Your task to perform on an android device: change notifications settings Image 0: 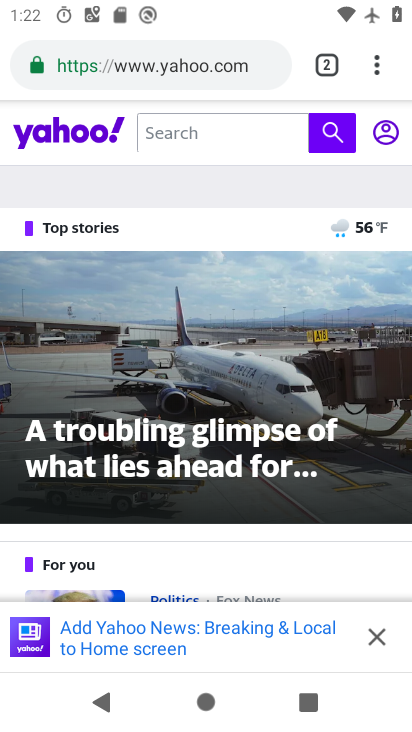
Step 0: press home button
Your task to perform on an android device: change notifications settings Image 1: 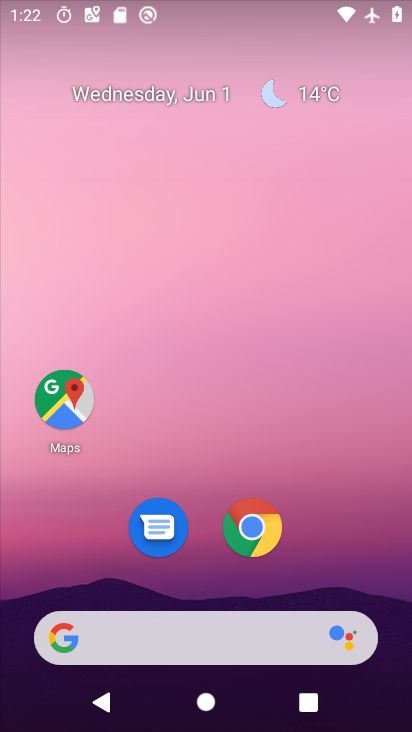
Step 1: drag from (325, 599) to (342, 8)
Your task to perform on an android device: change notifications settings Image 2: 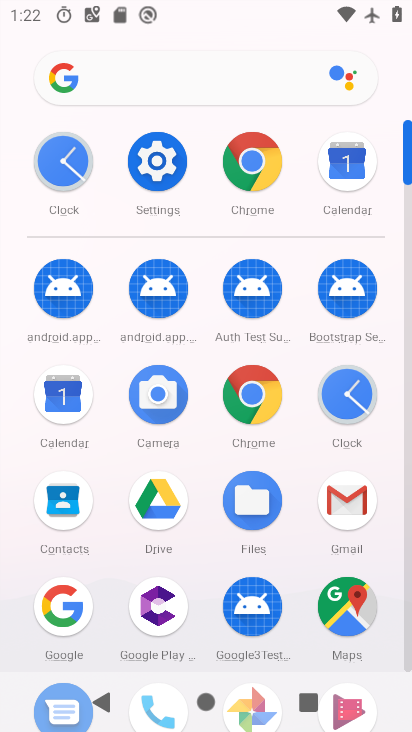
Step 2: click (152, 167)
Your task to perform on an android device: change notifications settings Image 3: 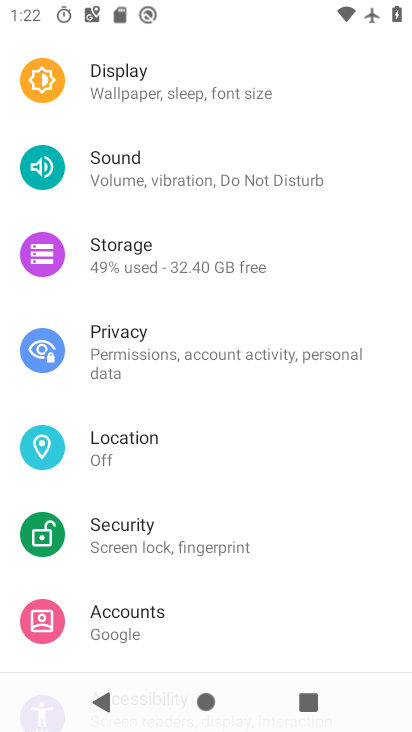
Step 3: drag from (210, 160) to (194, 425)
Your task to perform on an android device: change notifications settings Image 4: 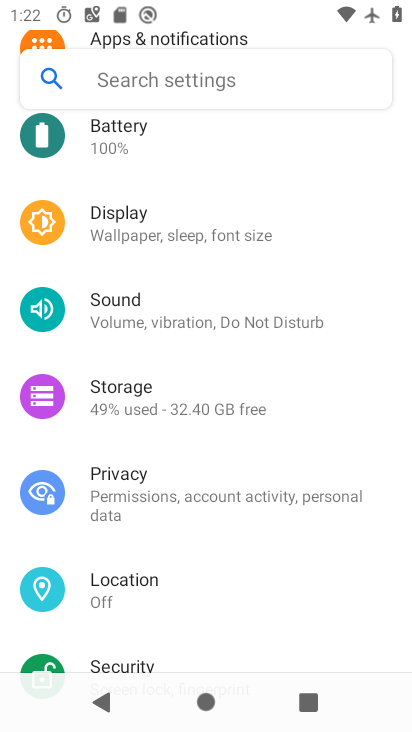
Step 4: drag from (188, 176) to (170, 450)
Your task to perform on an android device: change notifications settings Image 5: 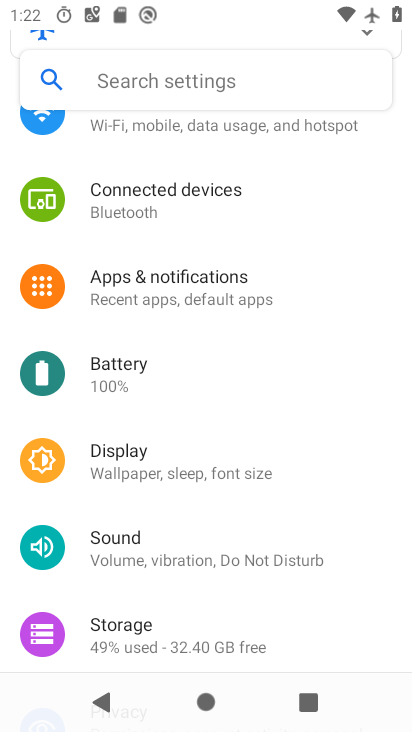
Step 5: click (154, 306)
Your task to perform on an android device: change notifications settings Image 6: 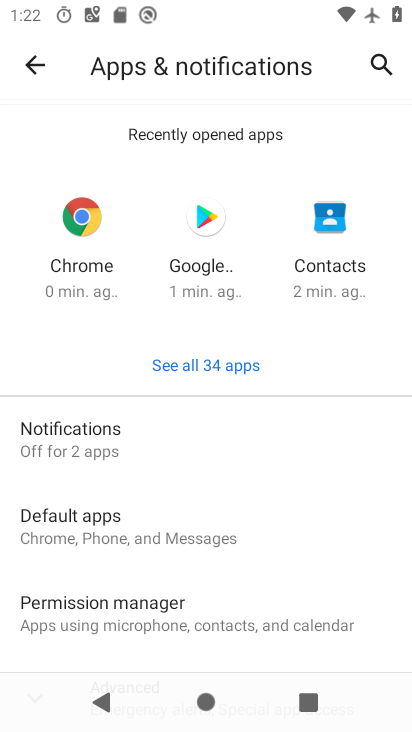
Step 6: click (64, 428)
Your task to perform on an android device: change notifications settings Image 7: 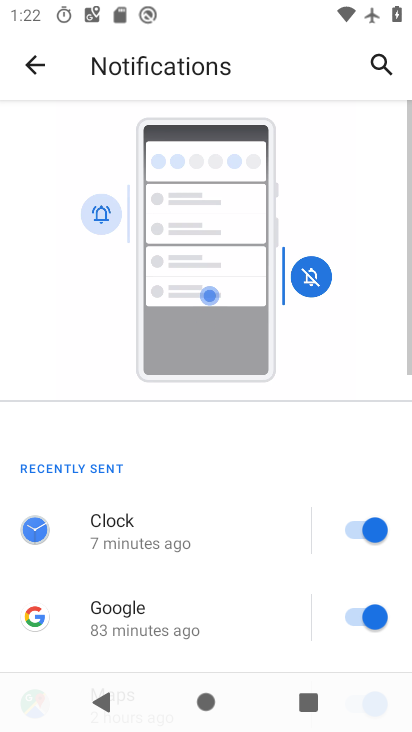
Step 7: drag from (200, 590) to (204, 13)
Your task to perform on an android device: change notifications settings Image 8: 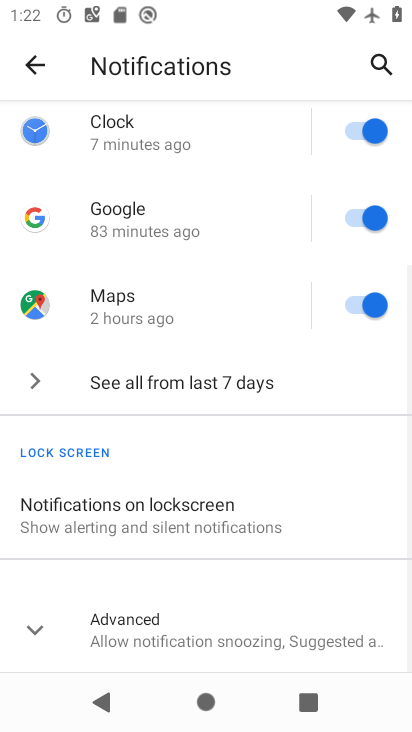
Step 8: drag from (148, 479) to (137, 232)
Your task to perform on an android device: change notifications settings Image 9: 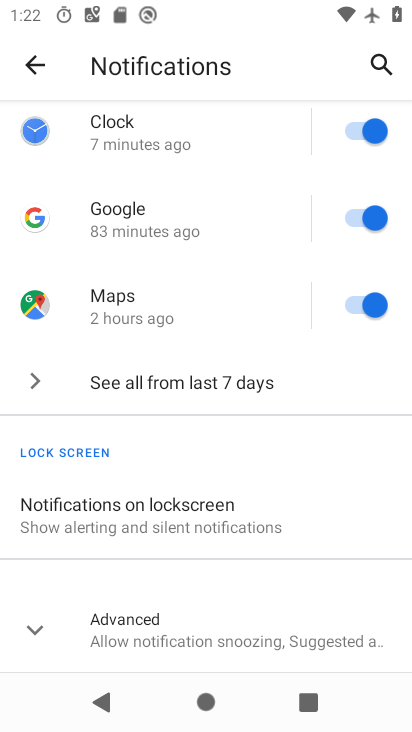
Step 9: click (122, 395)
Your task to perform on an android device: change notifications settings Image 10: 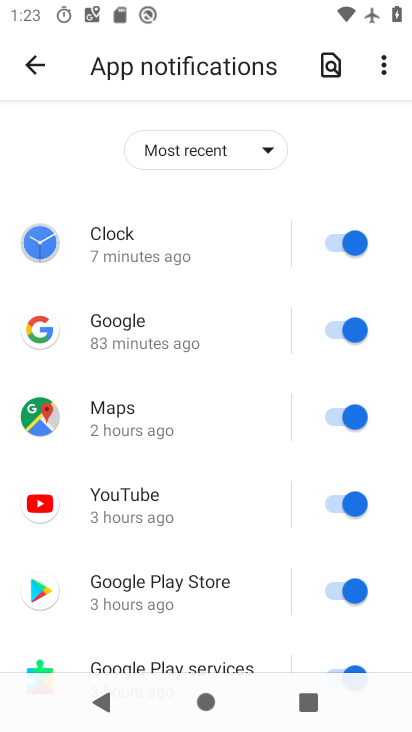
Step 10: click (259, 150)
Your task to perform on an android device: change notifications settings Image 11: 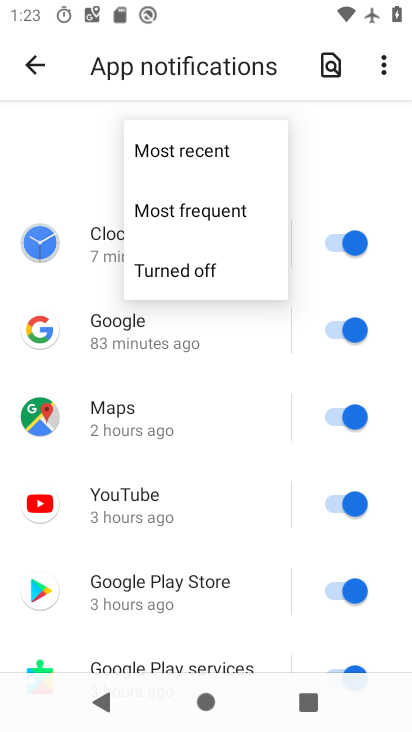
Step 11: click (175, 205)
Your task to perform on an android device: change notifications settings Image 12: 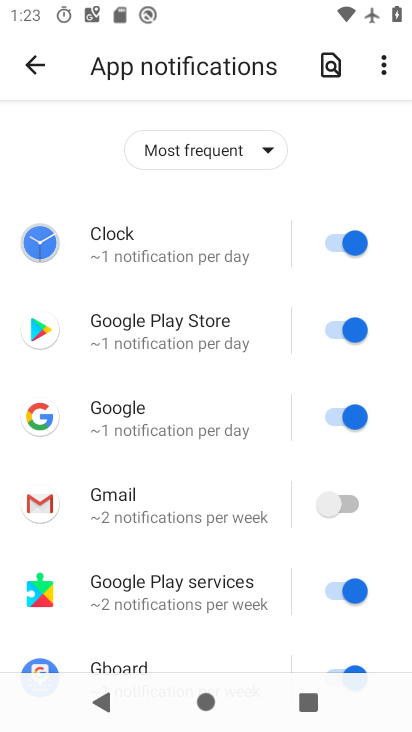
Step 12: task complete